Your task to perform on an android device: Do I have any events today? Image 0: 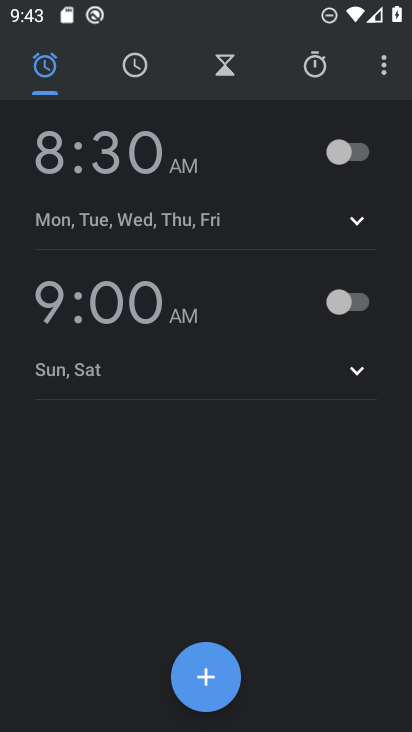
Step 0: press home button
Your task to perform on an android device: Do I have any events today? Image 1: 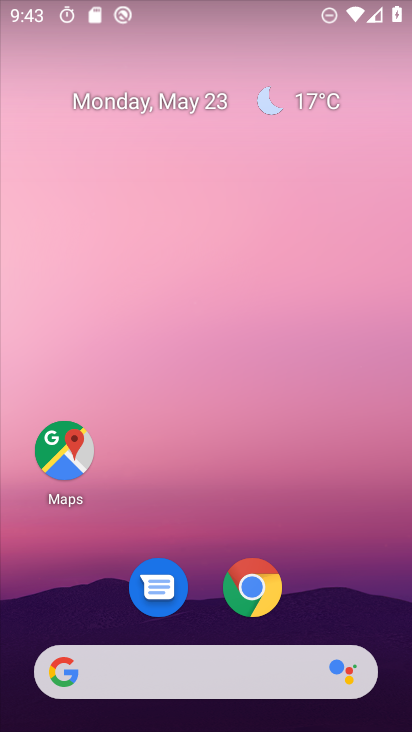
Step 1: drag from (194, 519) to (266, 17)
Your task to perform on an android device: Do I have any events today? Image 2: 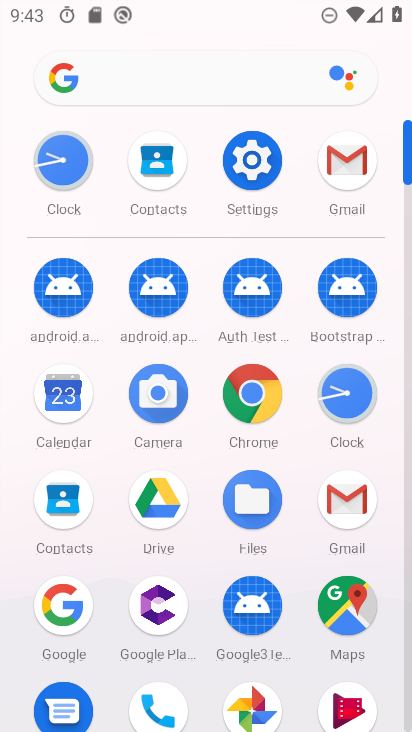
Step 2: click (71, 393)
Your task to perform on an android device: Do I have any events today? Image 3: 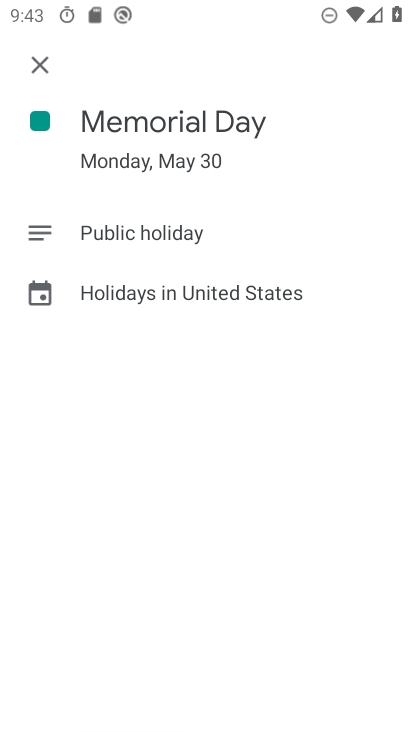
Step 3: click (35, 53)
Your task to perform on an android device: Do I have any events today? Image 4: 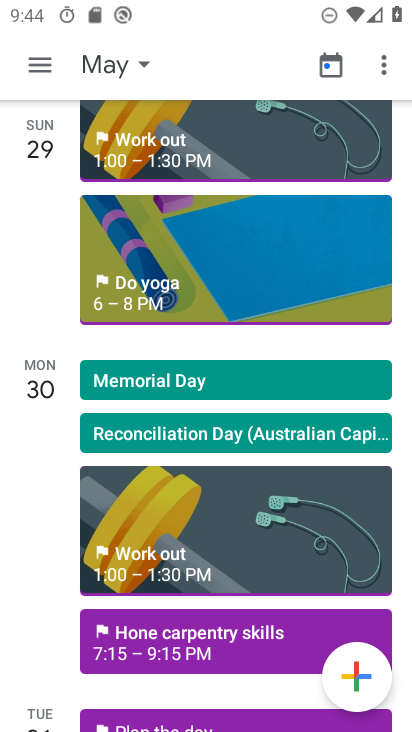
Step 4: click (107, 72)
Your task to perform on an android device: Do I have any events today? Image 5: 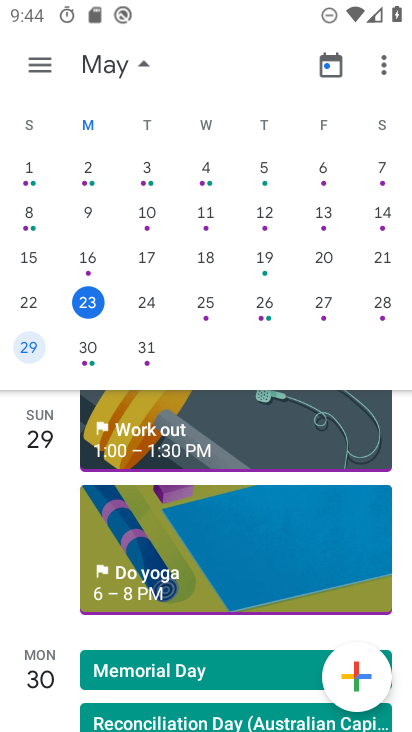
Step 5: click (136, 308)
Your task to perform on an android device: Do I have any events today? Image 6: 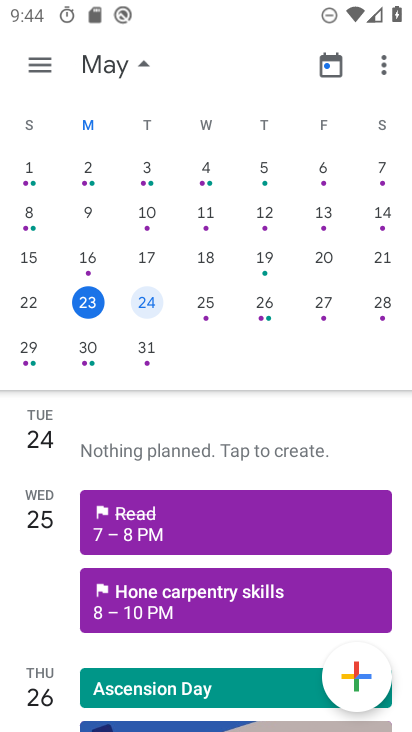
Step 6: task complete